Your task to perform on an android device: turn on the 12-hour format for clock Image 0: 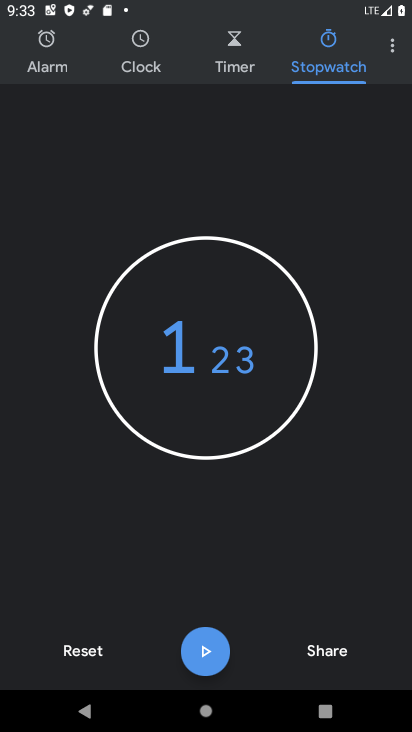
Step 0: press home button
Your task to perform on an android device: turn on the 12-hour format for clock Image 1: 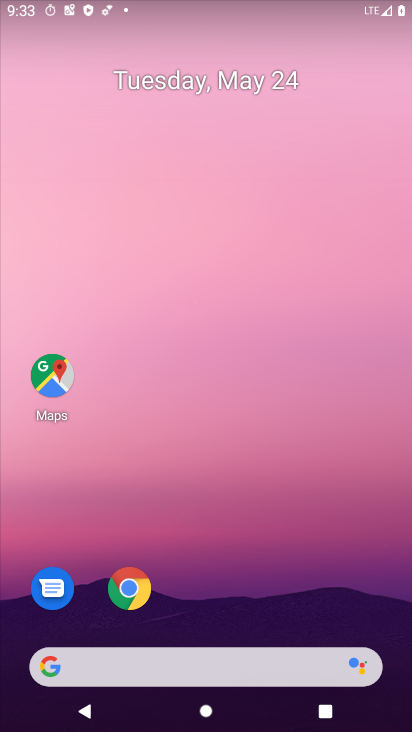
Step 1: drag from (199, 606) to (286, 74)
Your task to perform on an android device: turn on the 12-hour format for clock Image 2: 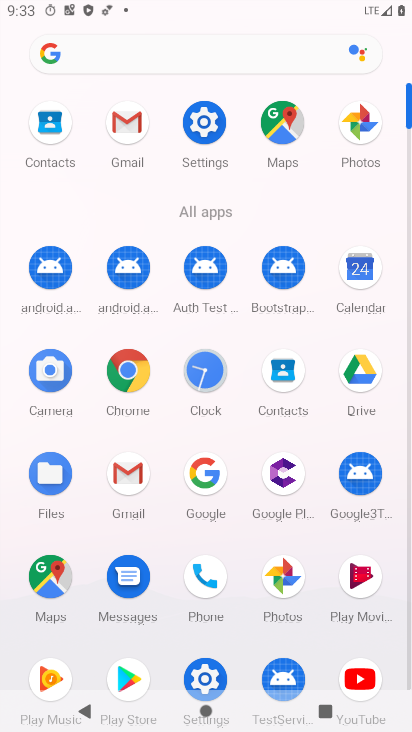
Step 2: click (207, 379)
Your task to perform on an android device: turn on the 12-hour format for clock Image 3: 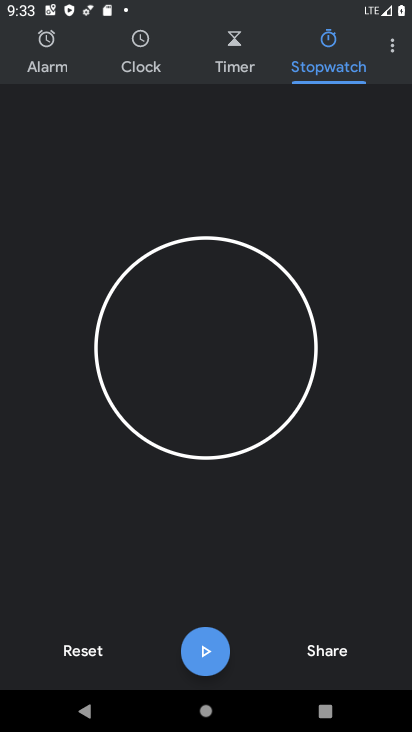
Step 3: click (386, 43)
Your task to perform on an android device: turn on the 12-hour format for clock Image 4: 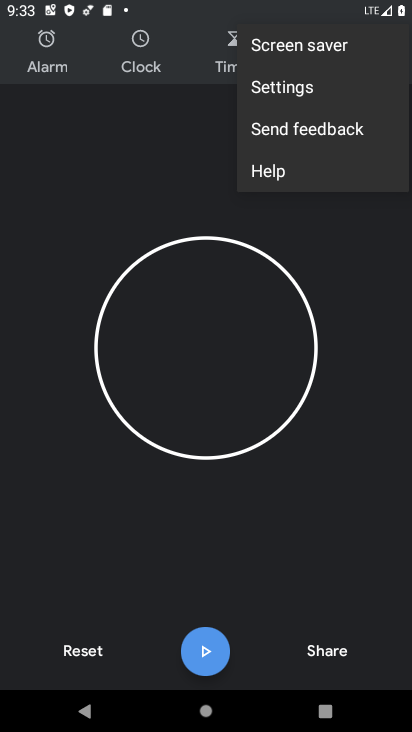
Step 4: click (294, 79)
Your task to perform on an android device: turn on the 12-hour format for clock Image 5: 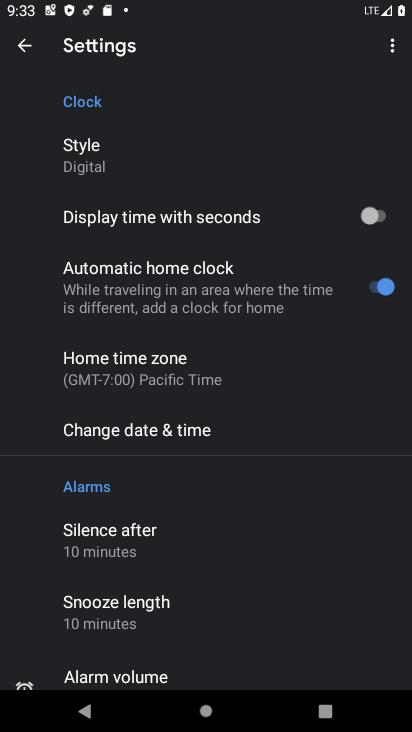
Step 5: click (168, 434)
Your task to perform on an android device: turn on the 12-hour format for clock Image 6: 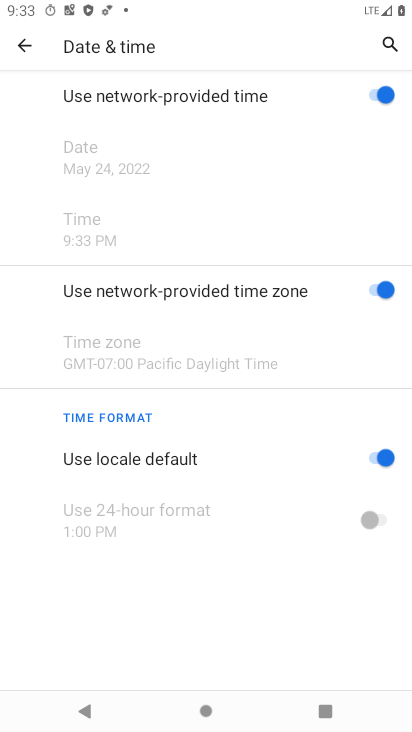
Step 6: task complete